Your task to perform on an android device: turn on airplane mode Image 0: 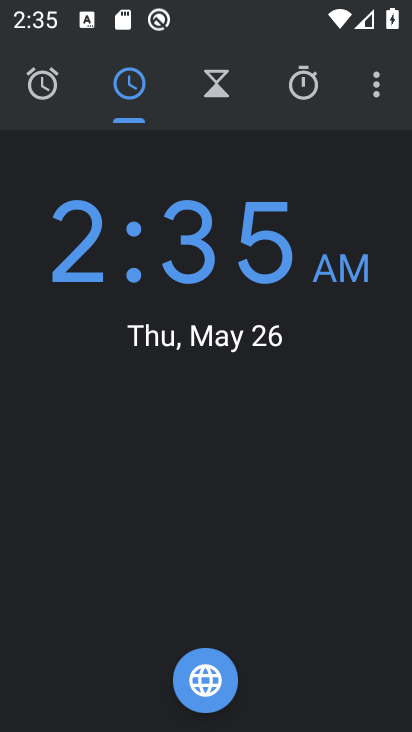
Step 0: press home button
Your task to perform on an android device: turn on airplane mode Image 1: 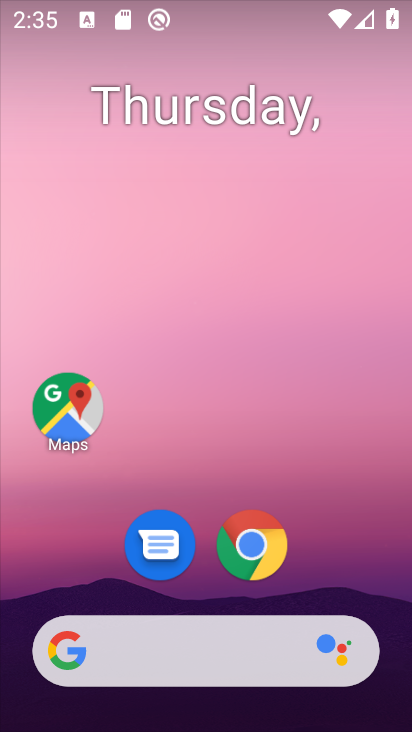
Step 1: drag from (266, 698) to (267, 19)
Your task to perform on an android device: turn on airplane mode Image 2: 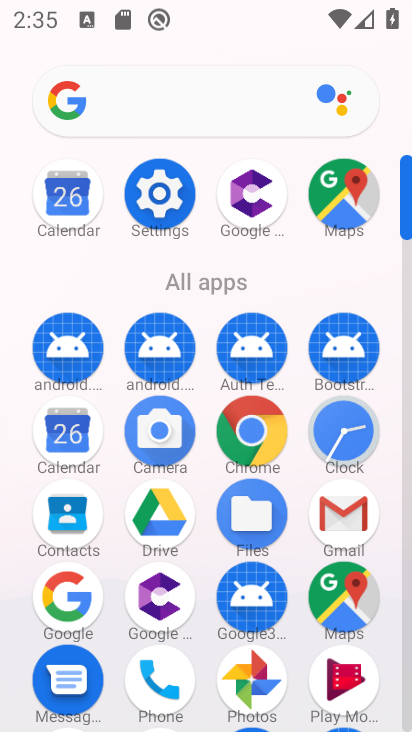
Step 2: click (170, 206)
Your task to perform on an android device: turn on airplane mode Image 3: 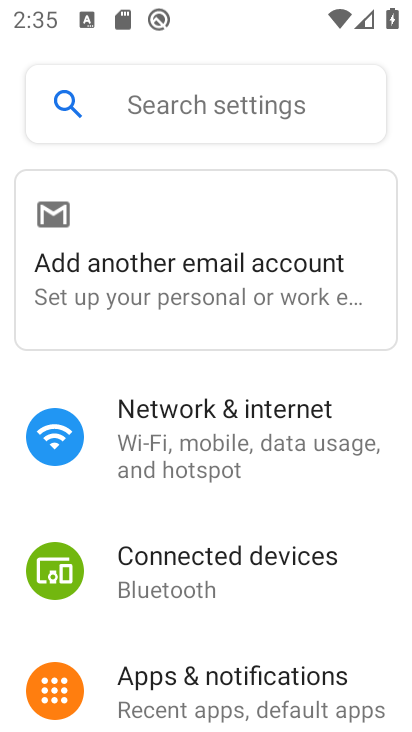
Step 3: click (194, 452)
Your task to perform on an android device: turn on airplane mode Image 4: 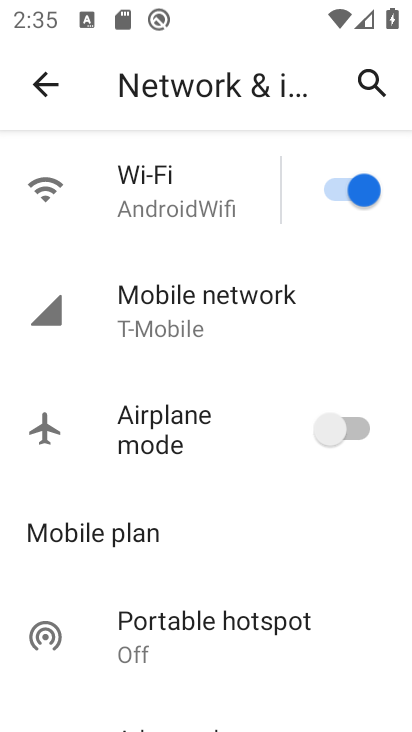
Step 4: click (351, 419)
Your task to perform on an android device: turn on airplane mode Image 5: 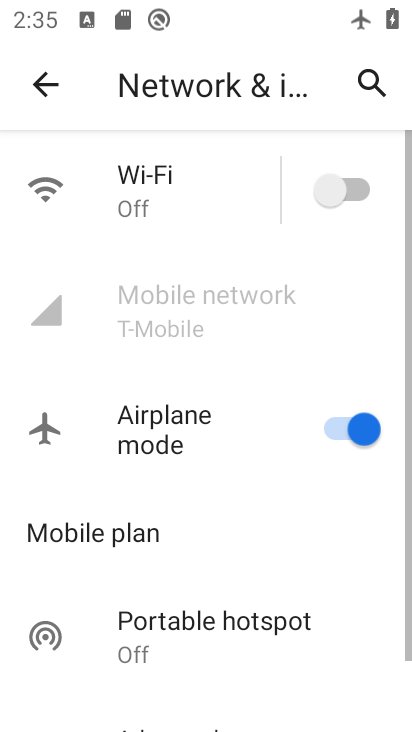
Step 5: task complete